Your task to perform on an android device: change notifications settings Image 0: 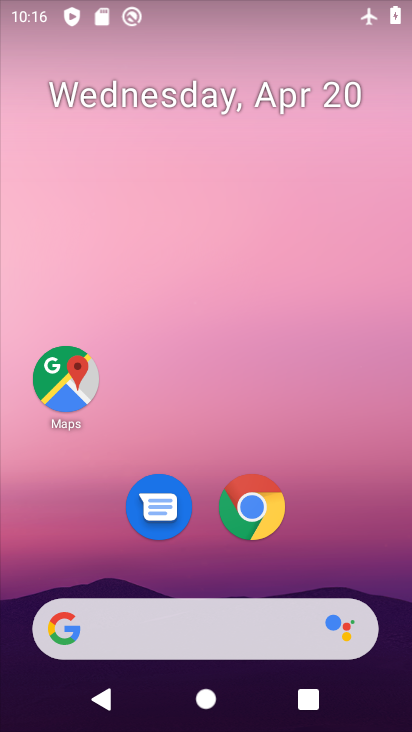
Step 0: drag from (207, 577) to (216, 96)
Your task to perform on an android device: change notifications settings Image 1: 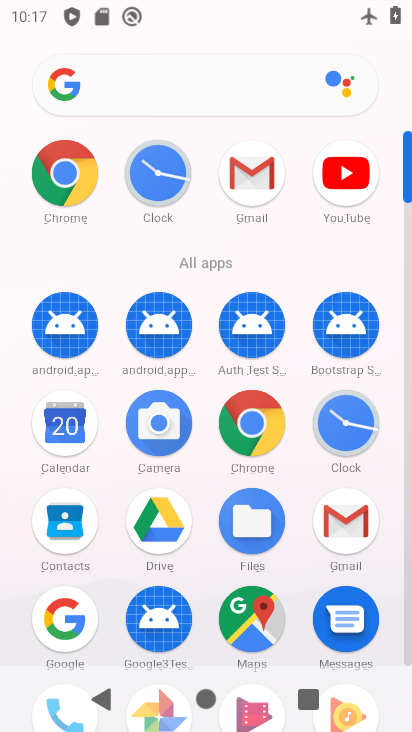
Step 1: drag from (212, 630) to (208, 394)
Your task to perform on an android device: change notifications settings Image 2: 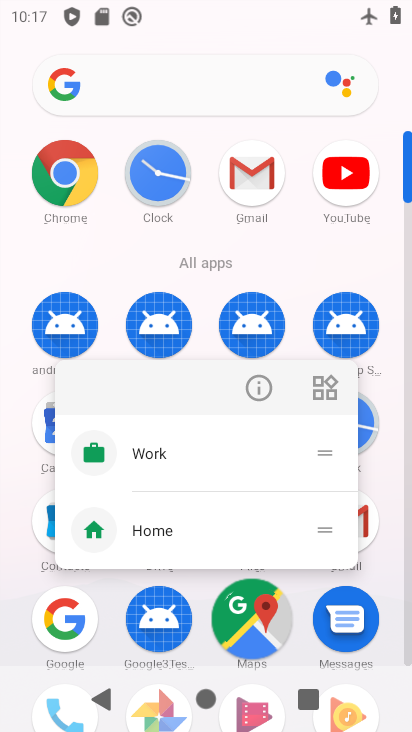
Step 2: click (280, 260)
Your task to perform on an android device: change notifications settings Image 3: 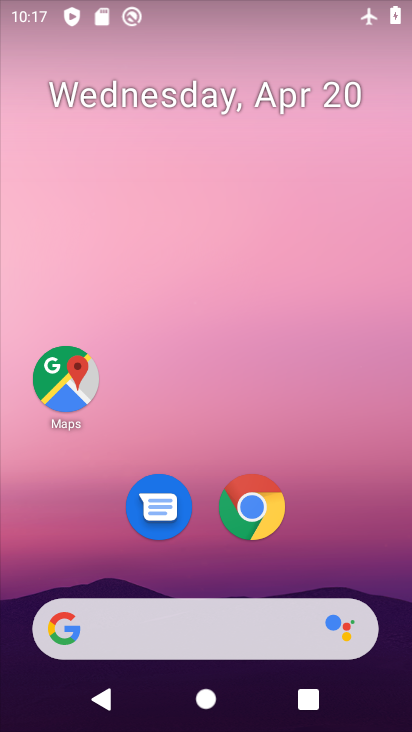
Step 3: drag from (219, 580) to (221, 223)
Your task to perform on an android device: change notifications settings Image 4: 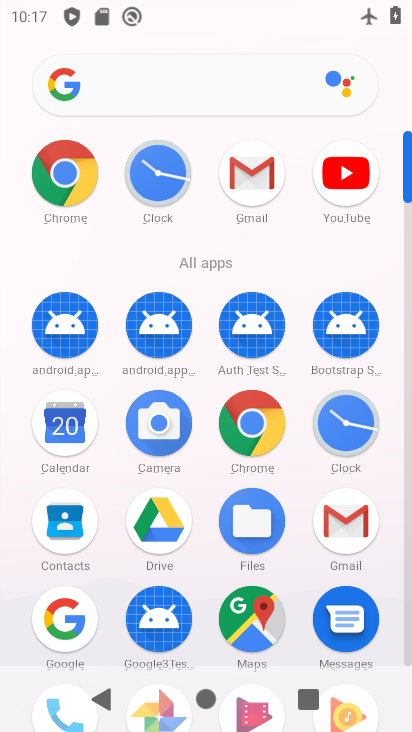
Step 4: drag from (409, 652) to (405, 731)
Your task to perform on an android device: change notifications settings Image 5: 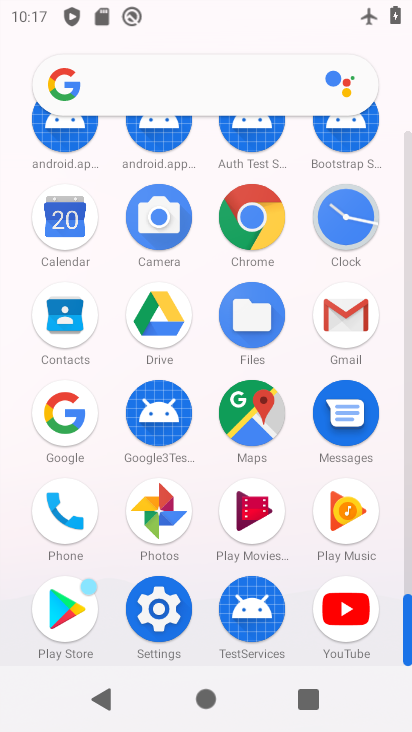
Step 5: click (154, 611)
Your task to perform on an android device: change notifications settings Image 6: 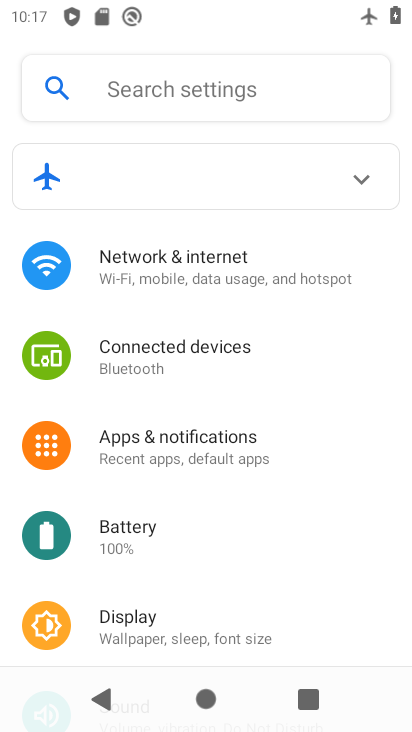
Step 6: click (170, 441)
Your task to perform on an android device: change notifications settings Image 7: 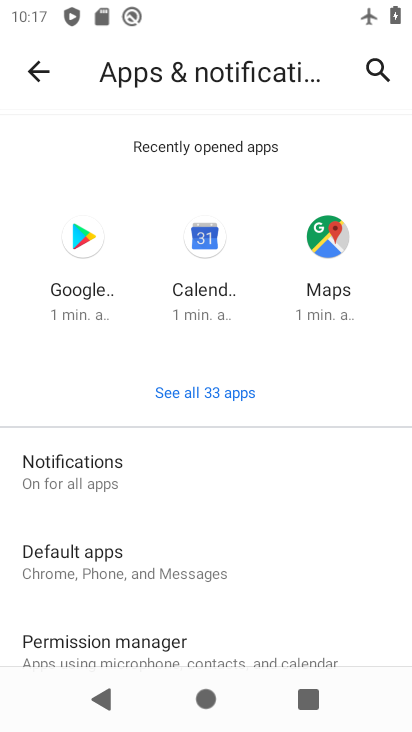
Step 7: click (70, 483)
Your task to perform on an android device: change notifications settings Image 8: 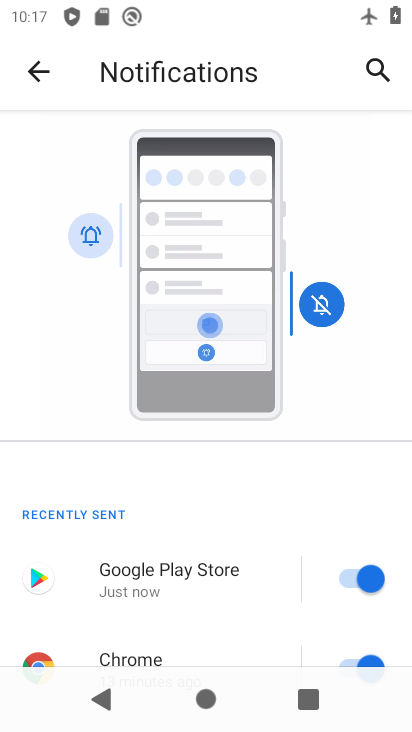
Step 8: drag from (154, 573) to (183, 251)
Your task to perform on an android device: change notifications settings Image 9: 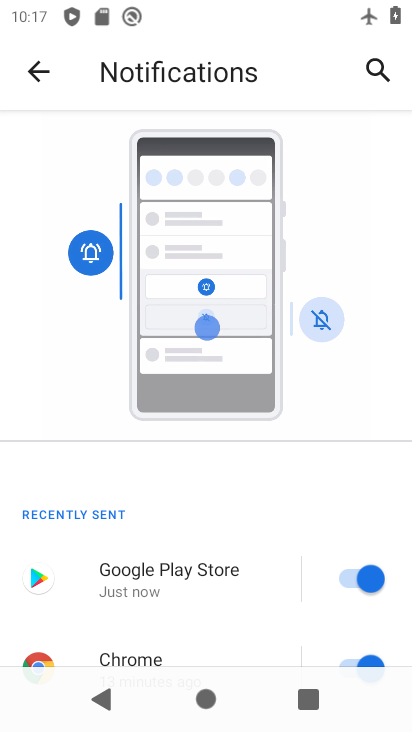
Step 9: drag from (198, 638) to (251, 256)
Your task to perform on an android device: change notifications settings Image 10: 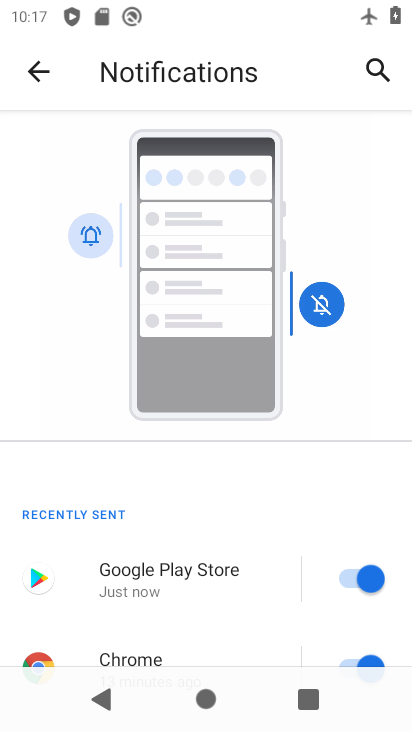
Step 10: drag from (221, 598) to (247, 400)
Your task to perform on an android device: change notifications settings Image 11: 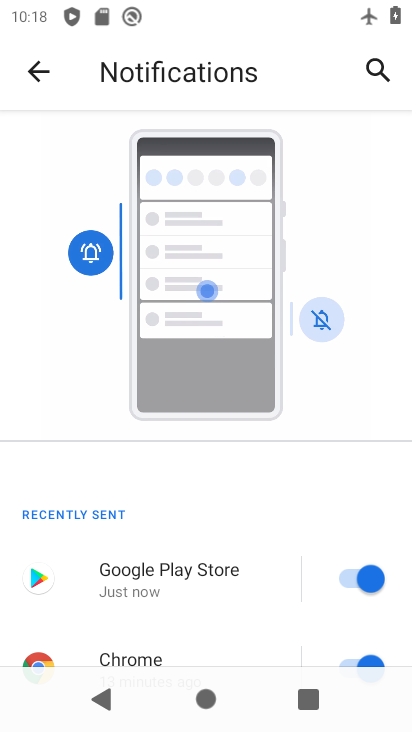
Step 11: drag from (202, 637) to (215, 459)
Your task to perform on an android device: change notifications settings Image 12: 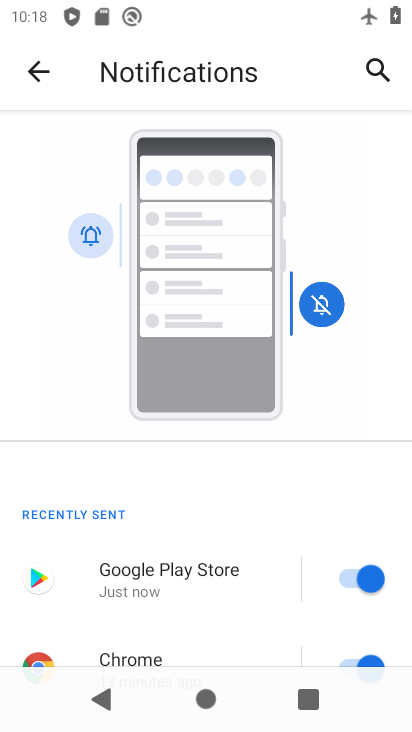
Step 12: click (351, 579)
Your task to perform on an android device: change notifications settings Image 13: 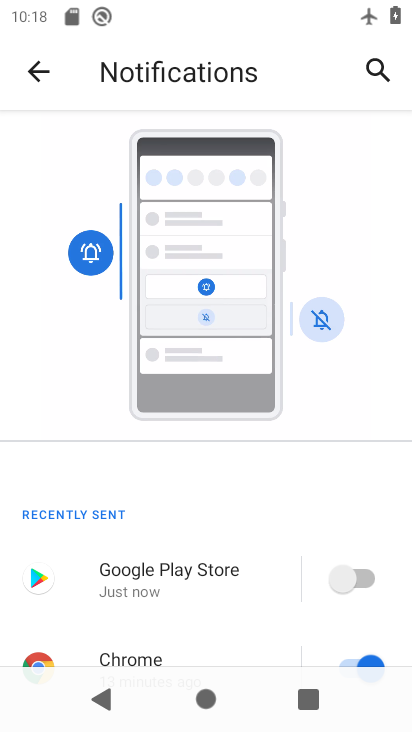
Step 13: task complete